Your task to perform on an android device: Open Chrome and go to settings Image 0: 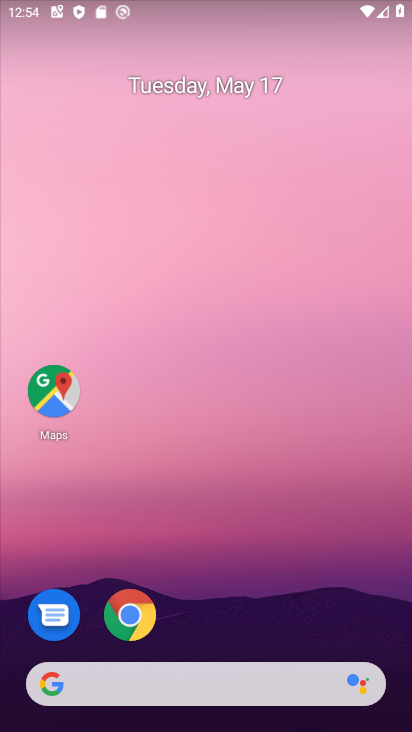
Step 0: click (129, 617)
Your task to perform on an android device: Open Chrome and go to settings Image 1: 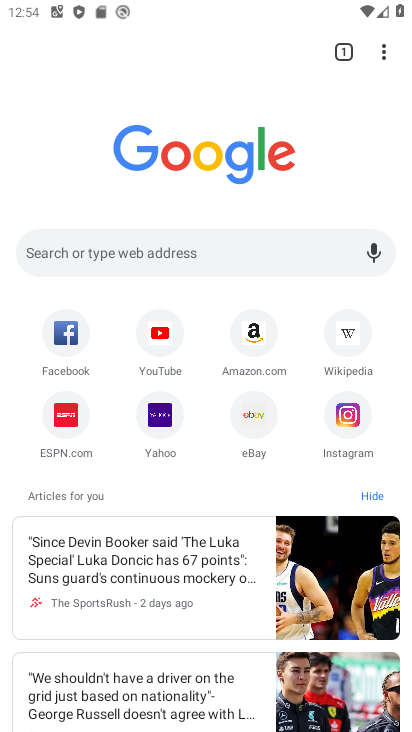
Step 1: click (385, 52)
Your task to perform on an android device: Open Chrome and go to settings Image 2: 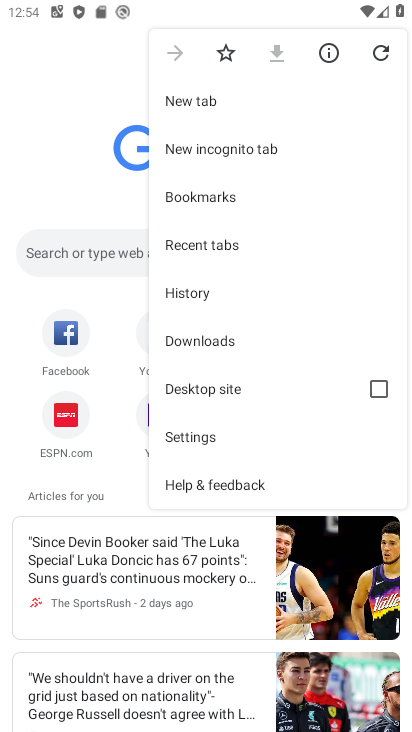
Step 2: click (205, 441)
Your task to perform on an android device: Open Chrome and go to settings Image 3: 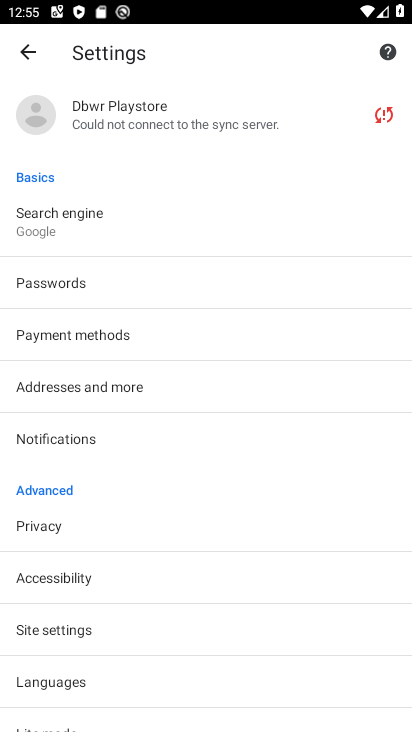
Step 3: task complete